Your task to perform on an android device: change alarm snooze length Image 0: 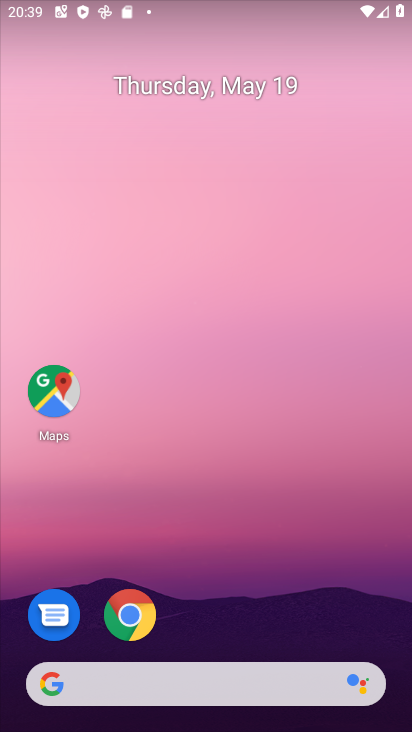
Step 0: drag from (265, 563) to (248, 80)
Your task to perform on an android device: change alarm snooze length Image 1: 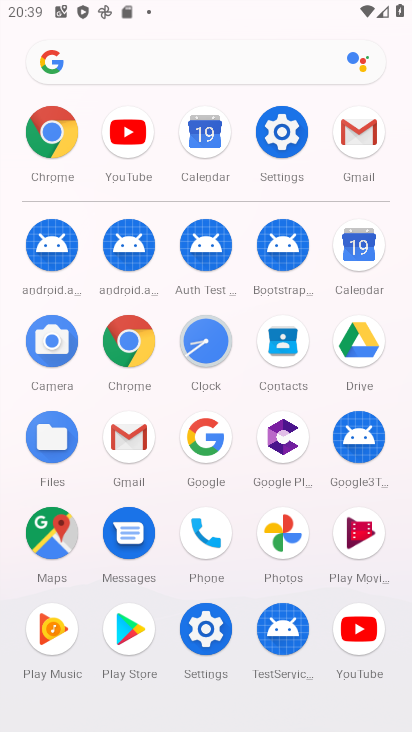
Step 1: click (194, 356)
Your task to perform on an android device: change alarm snooze length Image 2: 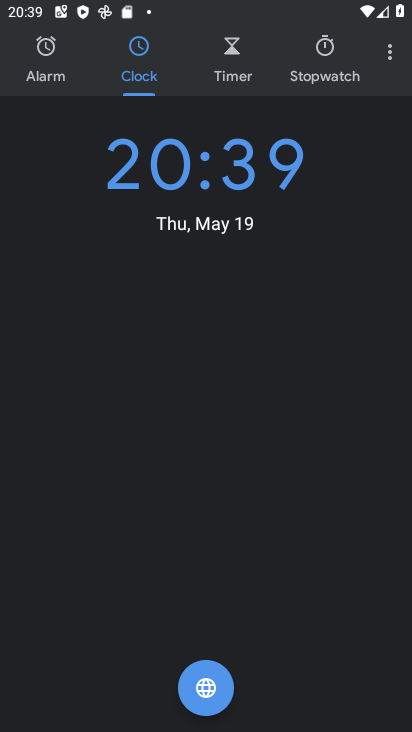
Step 2: click (384, 47)
Your task to perform on an android device: change alarm snooze length Image 3: 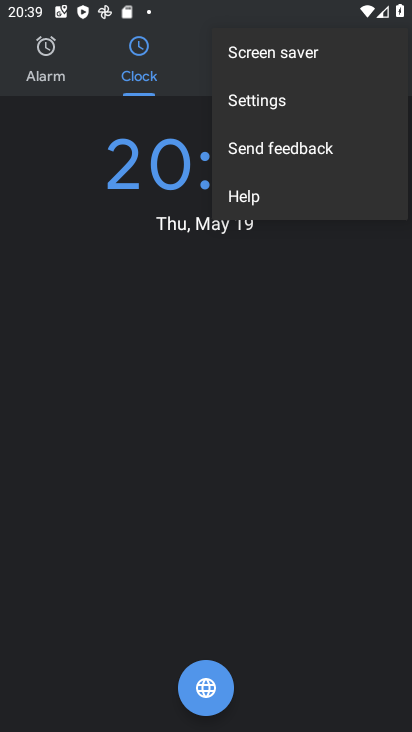
Step 3: click (292, 90)
Your task to perform on an android device: change alarm snooze length Image 4: 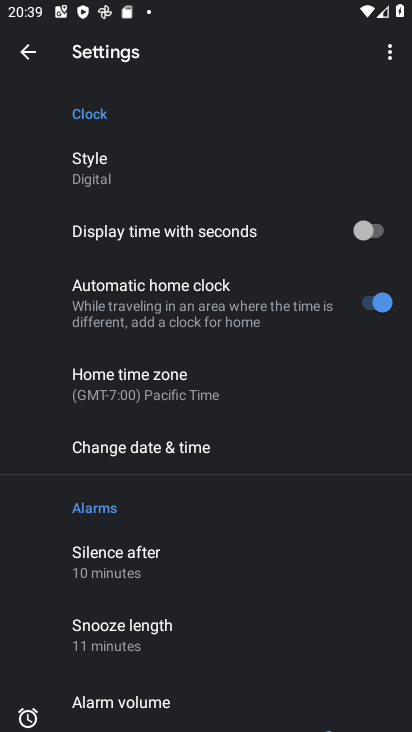
Step 4: click (148, 632)
Your task to perform on an android device: change alarm snooze length Image 5: 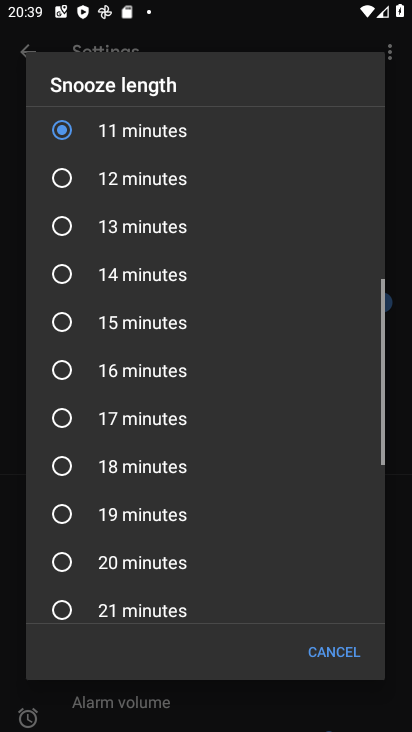
Step 5: click (66, 221)
Your task to perform on an android device: change alarm snooze length Image 6: 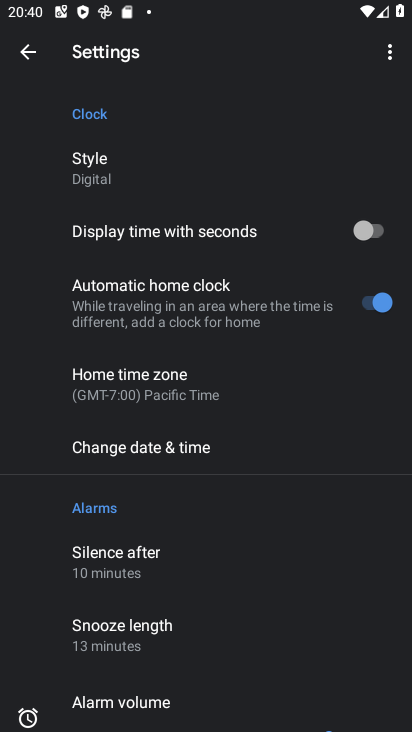
Step 6: task complete